Your task to perform on an android device: What's on my calendar today? Image 0: 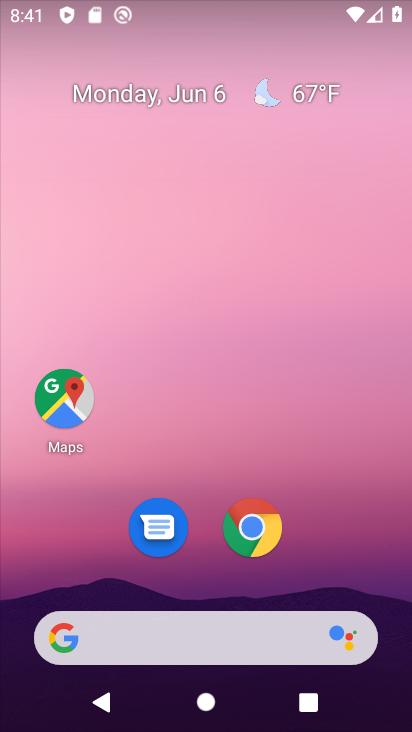
Step 0: drag from (188, 554) to (211, 42)
Your task to perform on an android device: What's on my calendar today? Image 1: 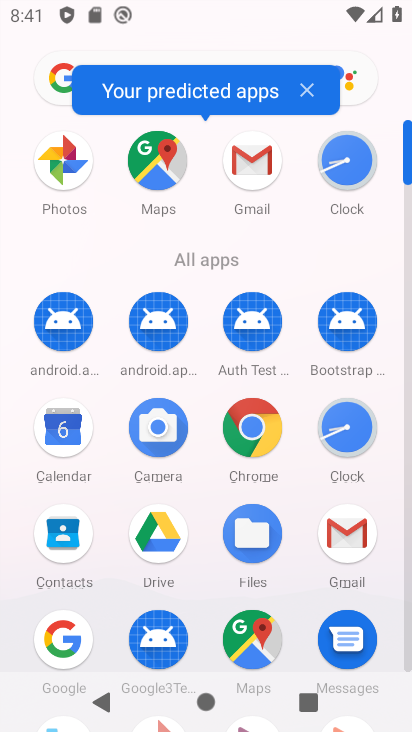
Step 1: click (78, 418)
Your task to perform on an android device: What's on my calendar today? Image 2: 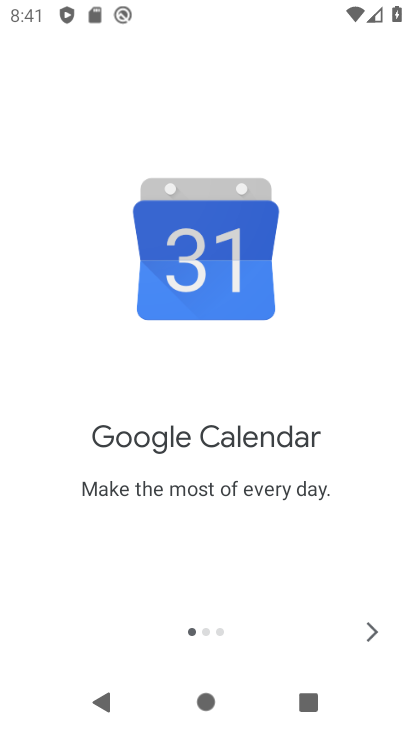
Step 2: click (361, 635)
Your task to perform on an android device: What's on my calendar today? Image 3: 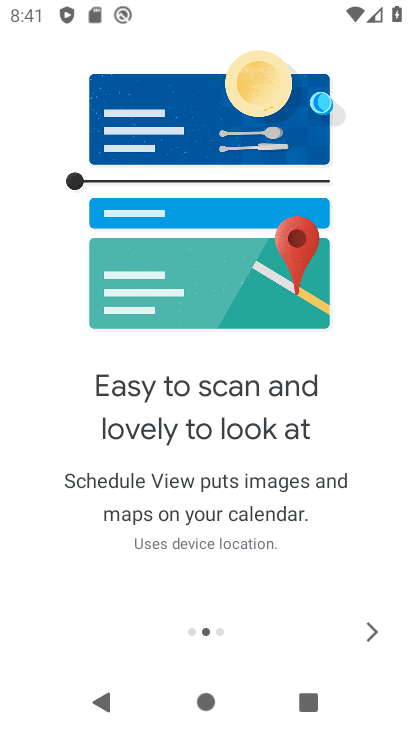
Step 3: click (361, 635)
Your task to perform on an android device: What's on my calendar today? Image 4: 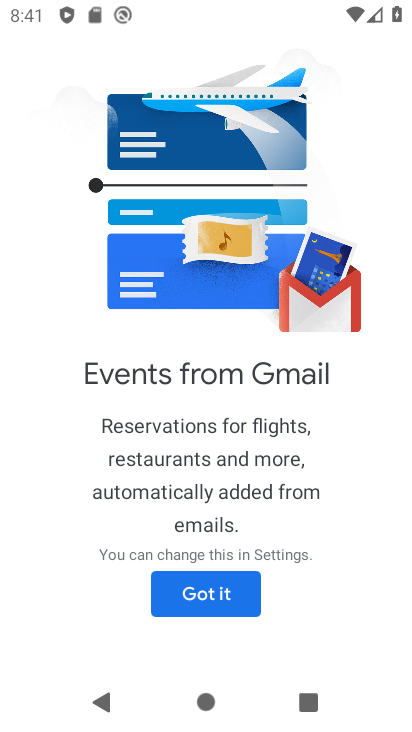
Step 4: click (226, 593)
Your task to perform on an android device: What's on my calendar today? Image 5: 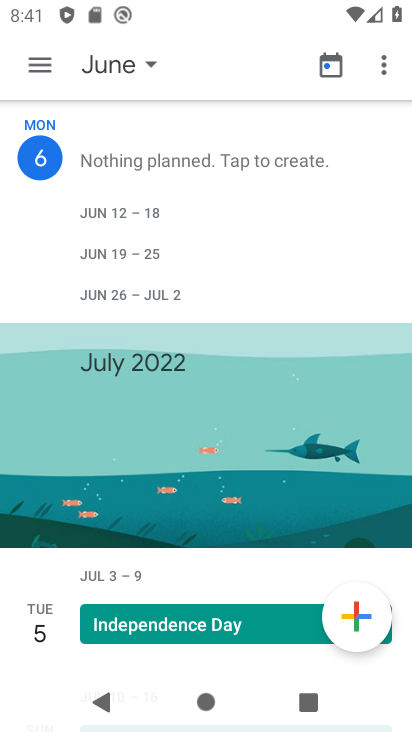
Step 5: click (133, 62)
Your task to perform on an android device: What's on my calendar today? Image 6: 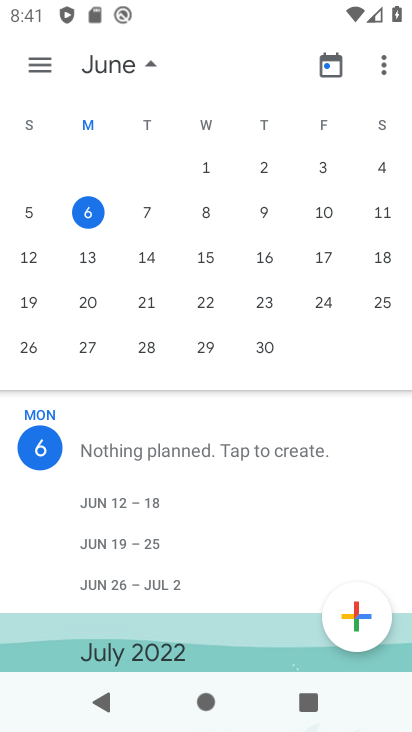
Step 6: task complete